Your task to perform on an android device: choose inbox layout in the gmail app Image 0: 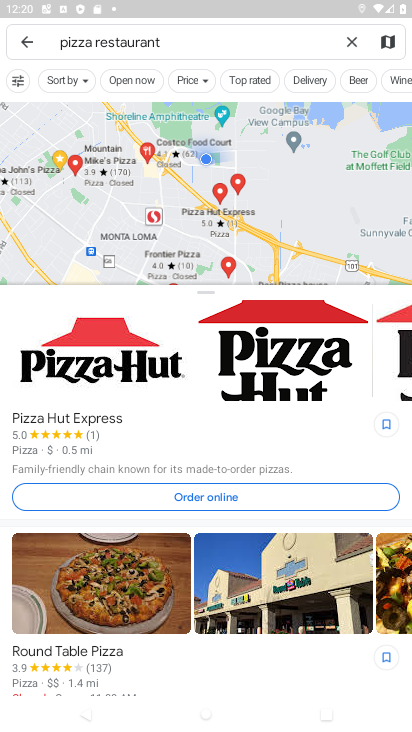
Step 0: task complete